Your task to perform on an android device: turn off smart reply in the gmail app Image 0: 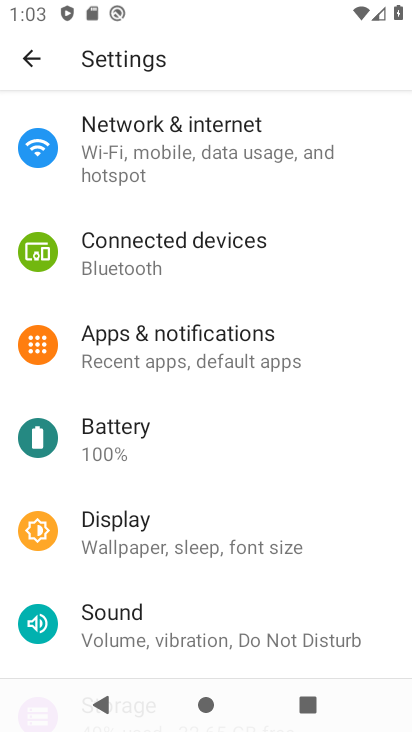
Step 0: press home button
Your task to perform on an android device: turn off smart reply in the gmail app Image 1: 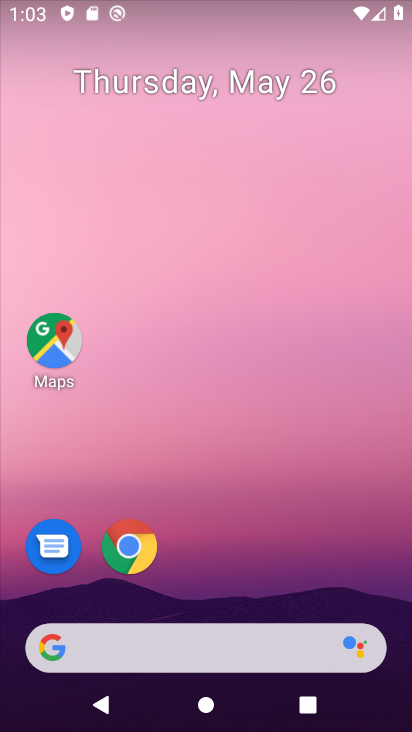
Step 1: drag from (176, 639) to (171, 4)
Your task to perform on an android device: turn off smart reply in the gmail app Image 2: 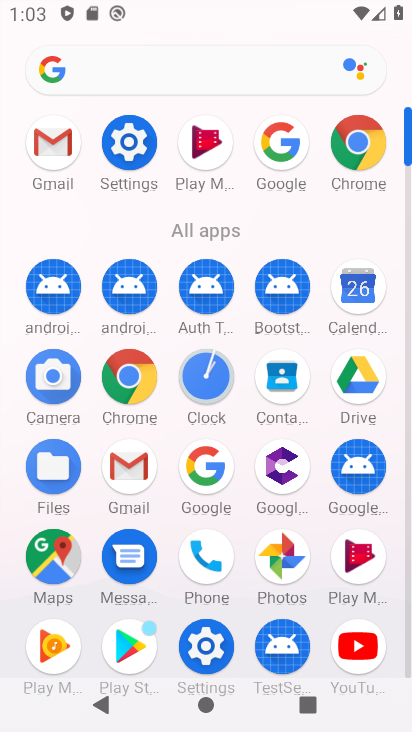
Step 2: click (128, 473)
Your task to perform on an android device: turn off smart reply in the gmail app Image 3: 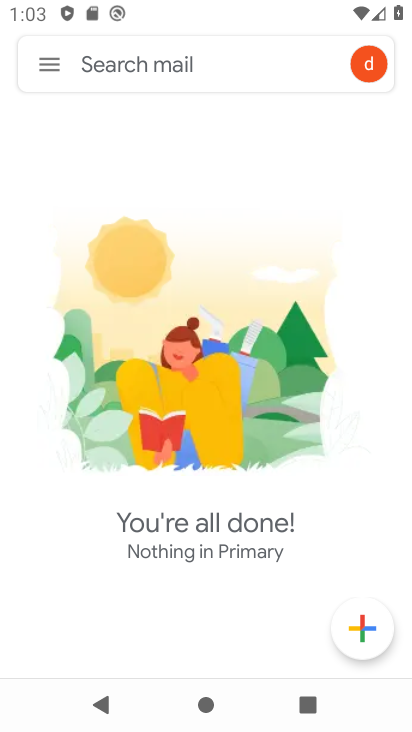
Step 3: click (54, 61)
Your task to perform on an android device: turn off smart reply in the gmail app Image 4: 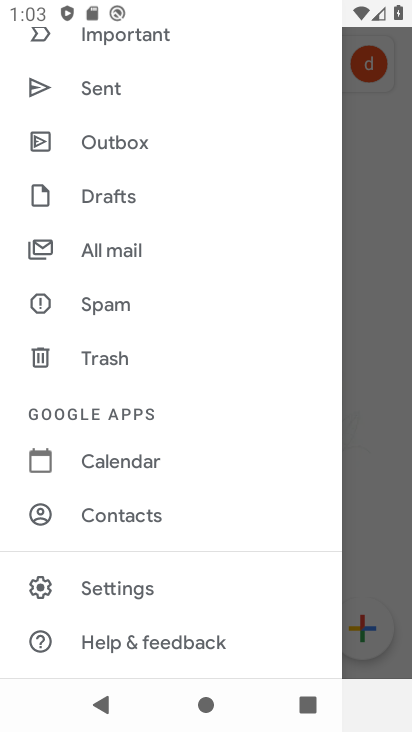
Step 4: click (156, 582)
Your task to perform on an android device: turn off smart reply in the gmail app Image 5: 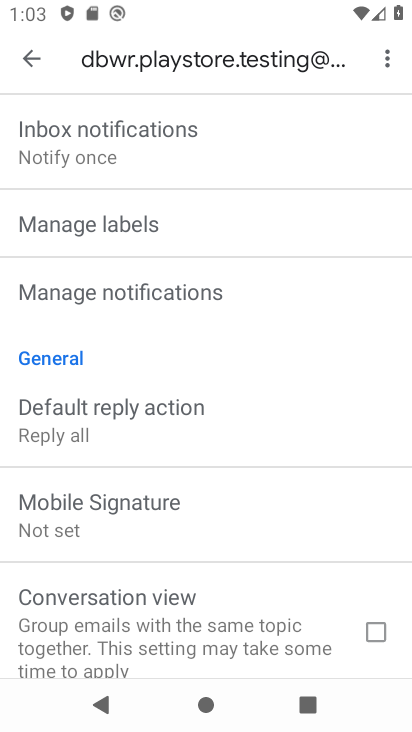
Step 5: drag from (199, 618) to (146, 81)
Your task to perform on an android device: turn off smart reply in the gmail app Image 6: 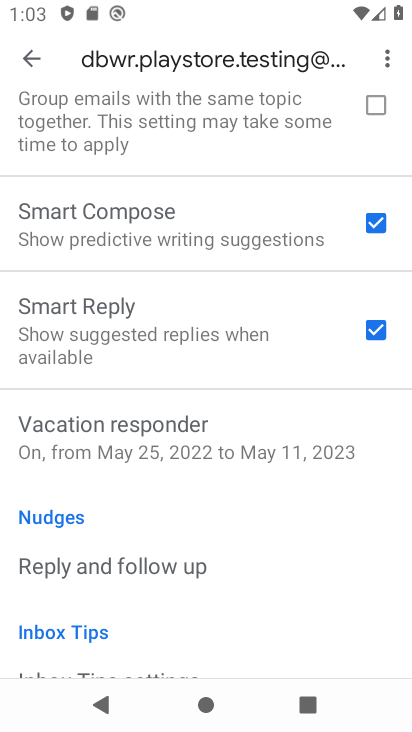
Step 6: click (364, 325)
Your task to perform on an android device: turn off smart reply in the gmail app Image 7: 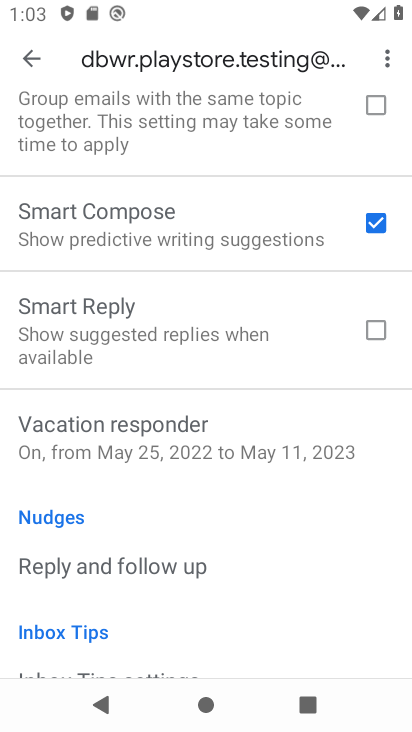
Step 7: task complete